Your task to perform on an android device: turn off airplane mode Image 0: 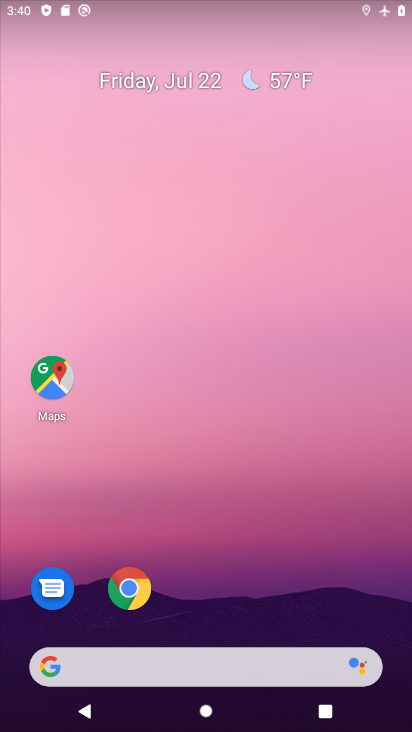
Step 0: drag from (215, 633) to (192, 33)
Your task to perform on an android device: turn off airplane mode Image 1: 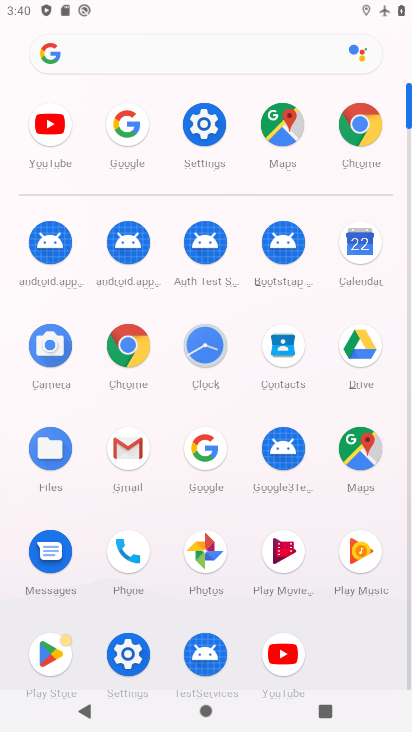
Step 1: click (210, 145)
Your task to perform on an android device: turn off airplane mode Image 2: 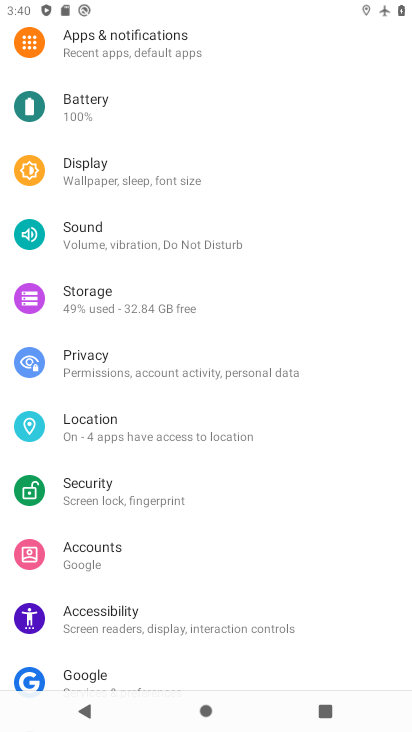
Step 2: drag from (143, 164) to (110, 691)
Your task to perform on an android device: turn off airplane mode Image 3: 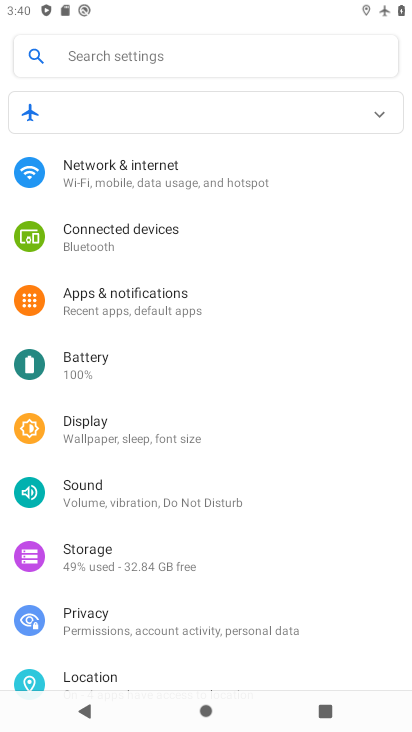
Step 3: click (100, 191)
Your task to perform on an android device: turn off airplane mode Image 4: 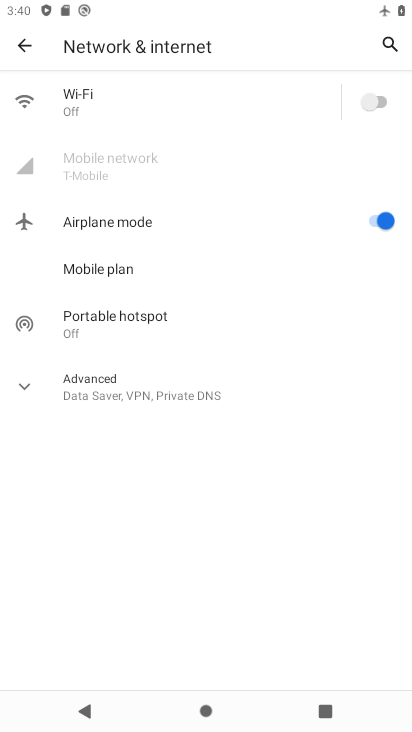
Step 4: click (379, 215)
Your task to perform on an android device: turn off airplane mode Image 5: 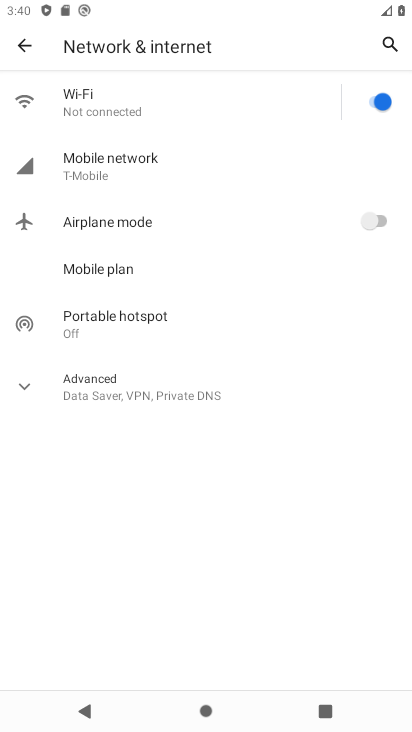
Step 5: task complete